Your task to perform on an android device: Turn off the flashlight Image 0: 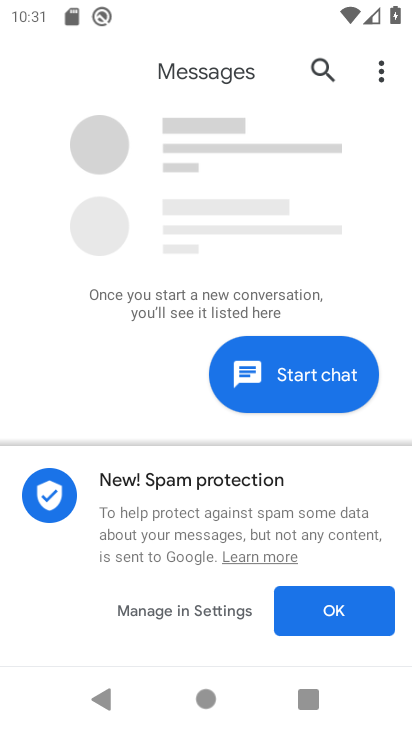
Step 0: press home button
Your task to perform on an android device: Turn off the flashlight Image 1: 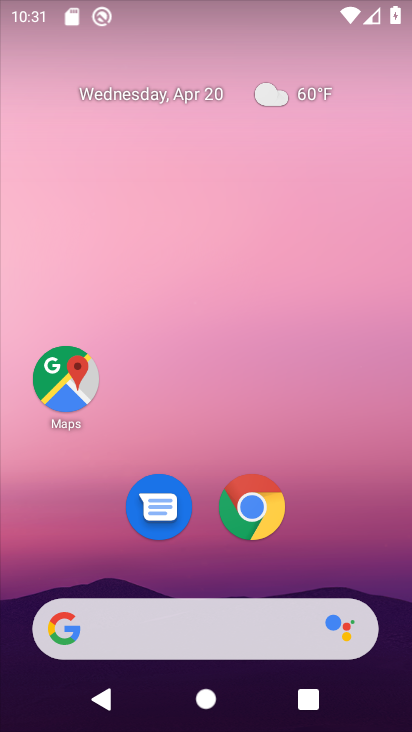
Step 1: drag from (201, 577) to (247, 186)
Your task to perform on an android device: Turn off the flashlight Image 2: 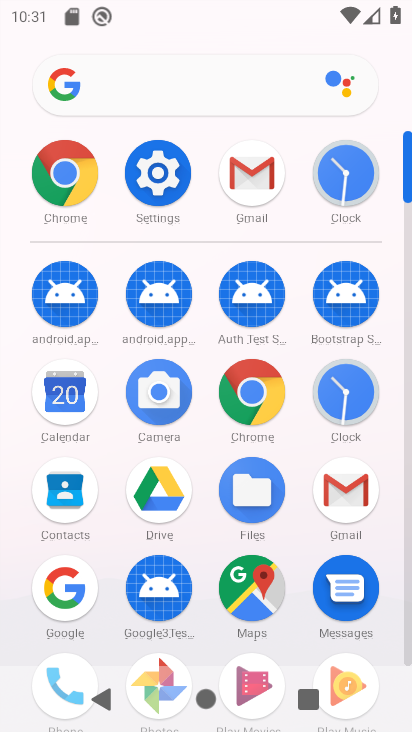
Step 2: click (160, 170)
Your task to perform on an android device: Turn off the flashlight Image 3: 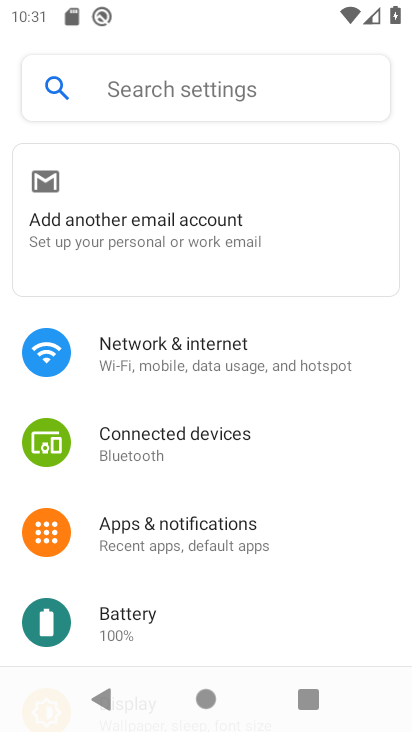
Step 3: drag from (157, 522) to (189, 251)
Your task to perform on an android device: Turn off the flashlight Image 4: 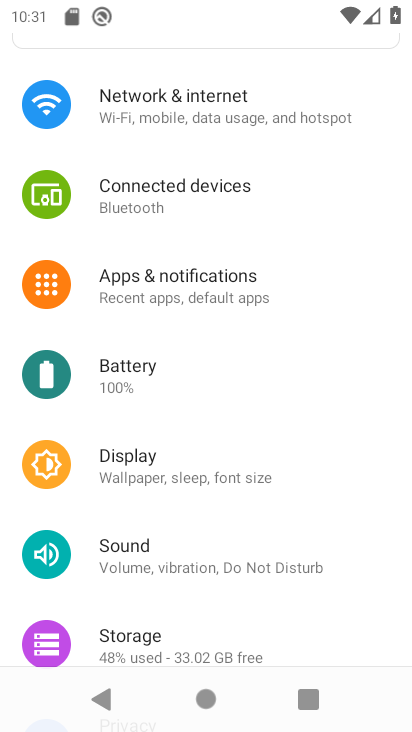
Step 4: click (165, 473)
Your task to perform on an android device: Turn off the flashlight Image 5: 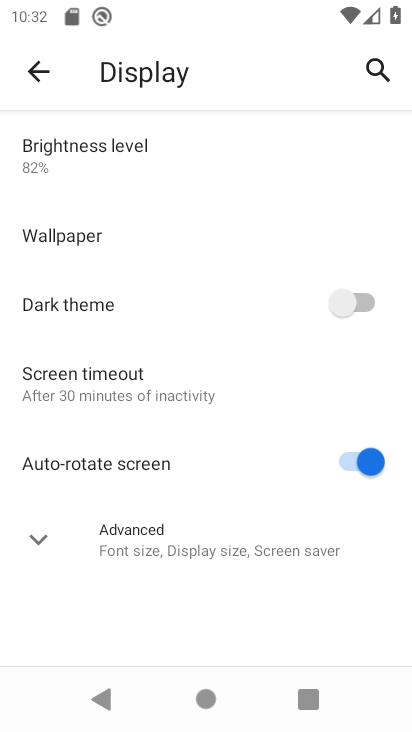
Step 5: task complete